Your task to perform on an android device: toggle javascript in the chrome app Image 0: 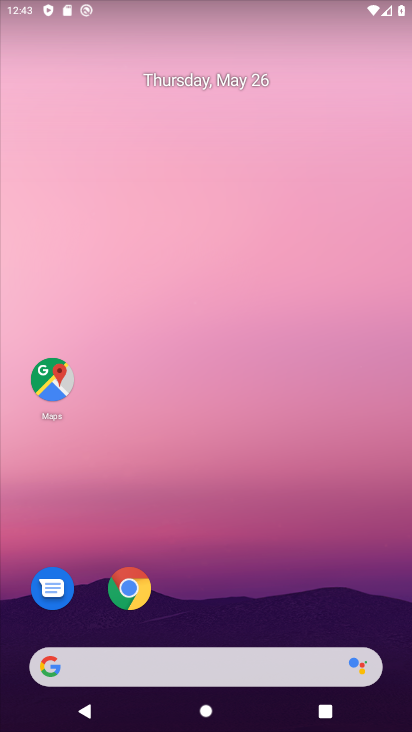
Step 0: click (128, 593)
Your task to perform on an android device: toggle javascript in the chrome app Image 1: 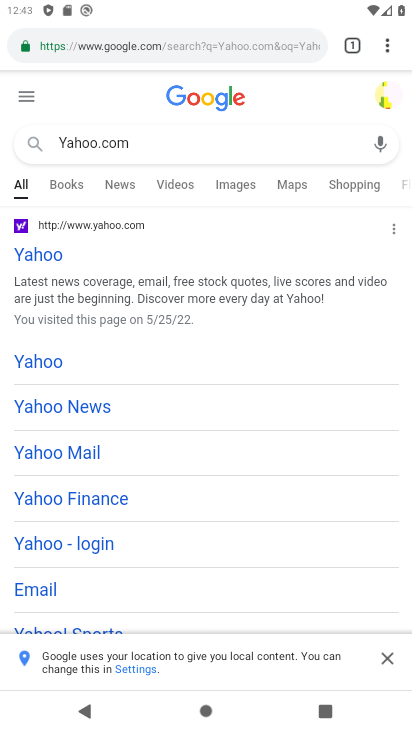
Step 1: press home button
Your task to perform on an android device: toggle javascript in the chrome app Image 2: 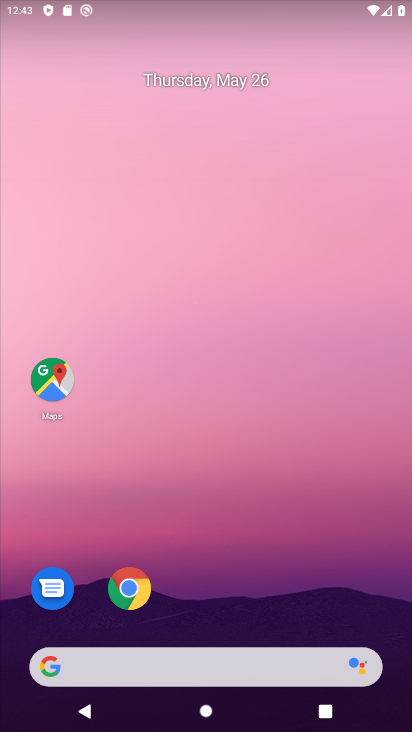
Step 2: drag from (398, 671) to (330, 88)
Your task to perform on an android device: toggle javascript in the chrome app Image 3: 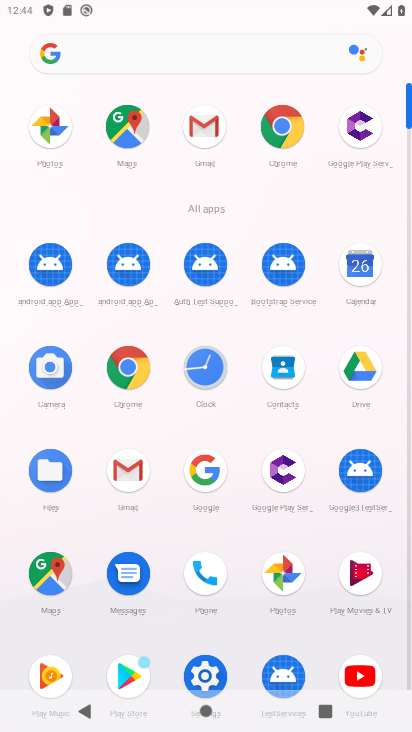
Step 3: click (285, 121)
Your task to perform on an android device: toggle javascript in the chrome app Image 4: 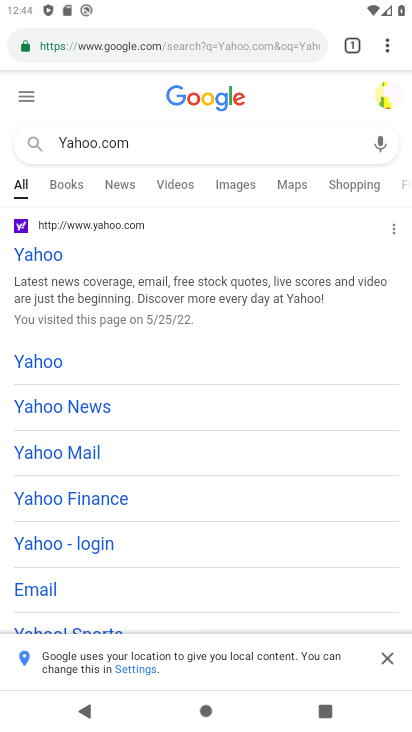
Step 4: drag from (209, 579) to (176, 285)
Your task to perform on an android device: toggle javascript in the chrome app Image 5: 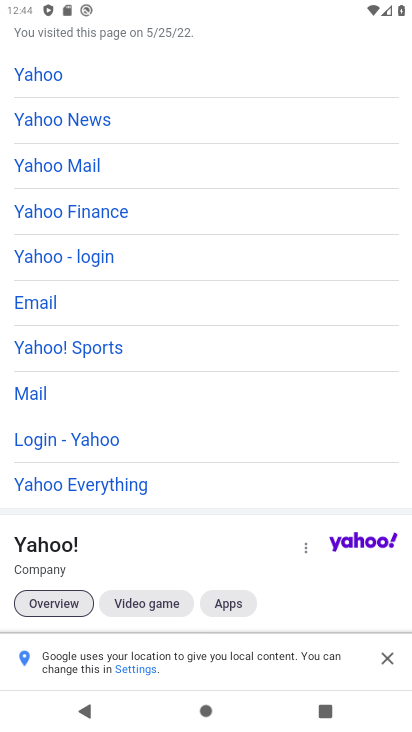
Step 5: drag from (185, 186) to (170, 573)
Your task to perform on an android device: toggle javascript in the chrome app Image 6: 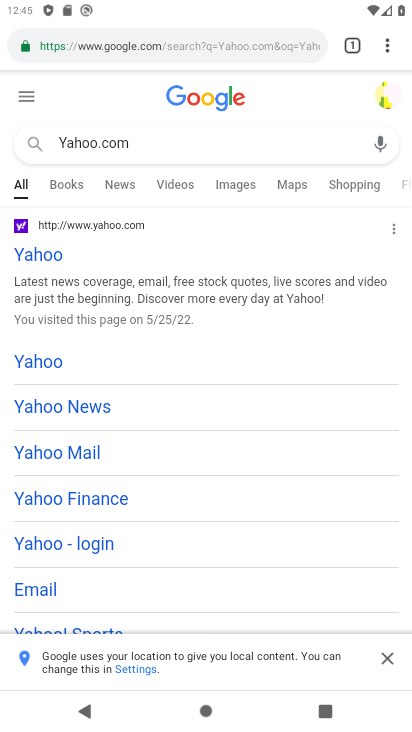
Step 6: click (382, 43)
Your task to perform on an android device: toggle javascript in the chrome app Image 7: 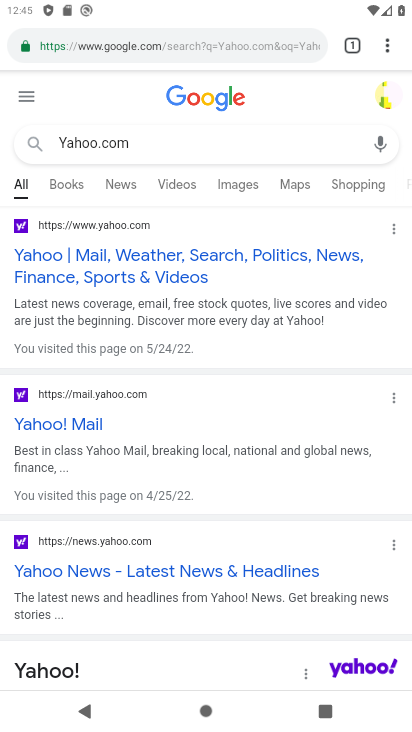
Step 7: click (388, 40)
Your task to perform on an android device: toggle javascript in the chrome app Image 8: 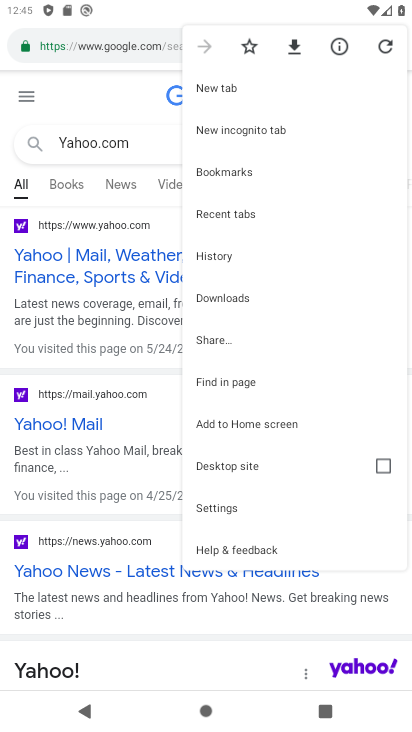
Step 8: click (217, 502)
Your task to perform on an android device: toggle javascript in the chrome app Image 9: 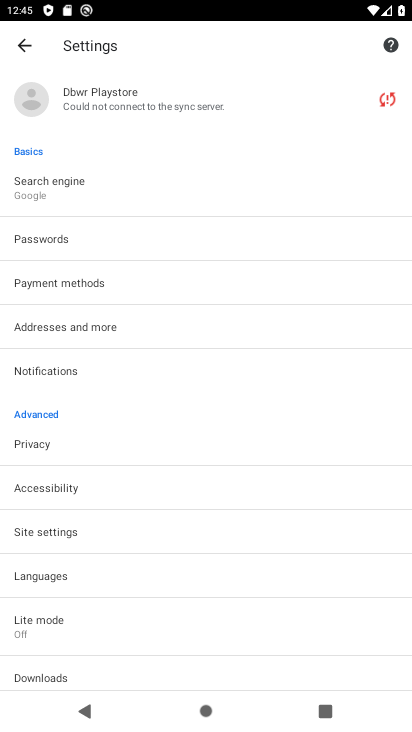
Step 9: click (46, 534)
Your task to perform on an android device: toggle javascript in the chrome app Image 10: 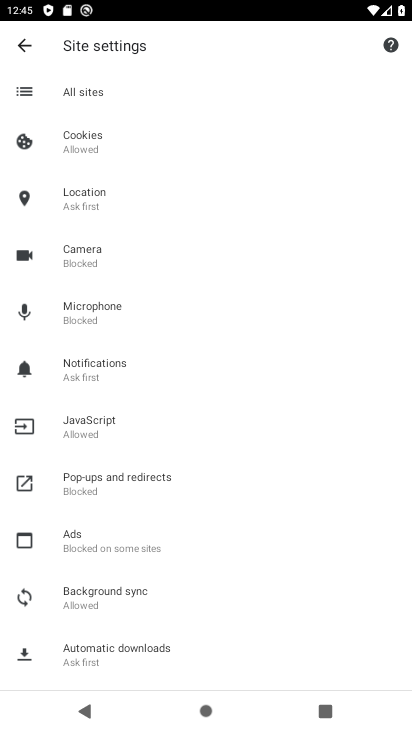
Step 10: click (94, 414)
Your task to perform on an android device: toggle javascript in the chrome app Image 11: 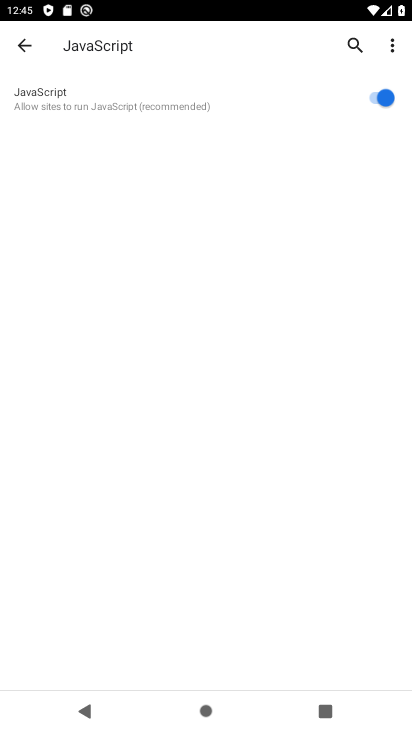
Step 11: click (376, 95)
Your task to perform on an android device: toggle javascript in the chrome app Image 12: 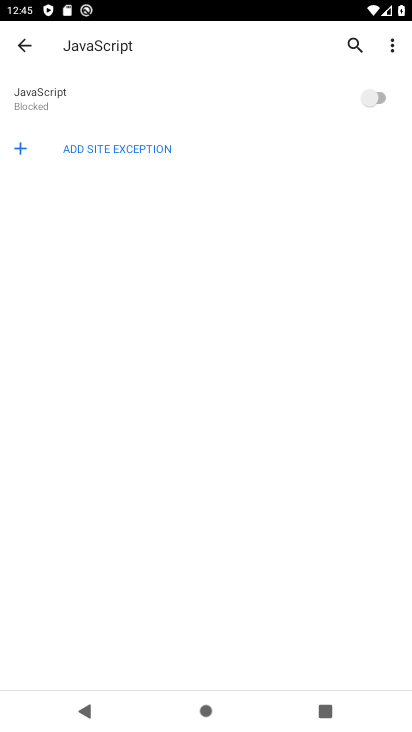
Step 12: task complete